Your task to perform on an android device: change alarm snooze length Image 0: 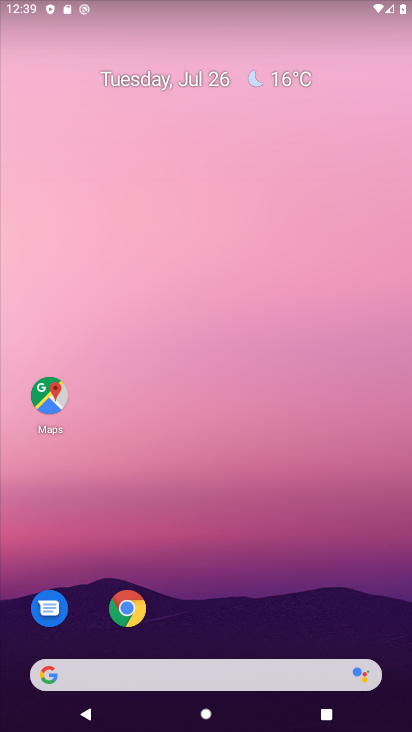
Step 0: task complete